Your task to perform on an android device: turn pop-ups off in chrome Image 0: 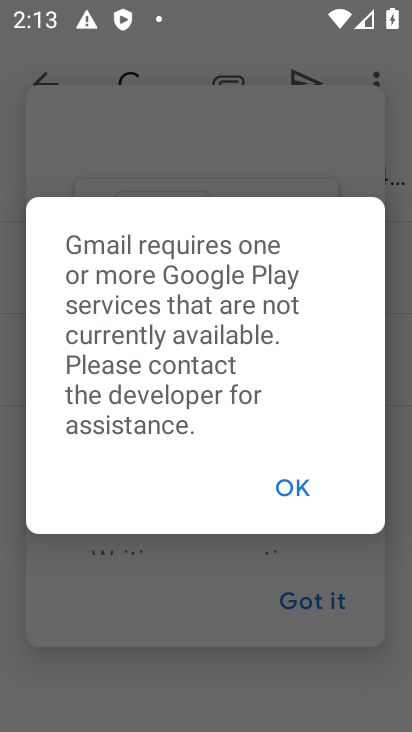
Step 0: click (296, 487)
Your task to perform on an android device: turn pop-ups off in chrome Image 1: 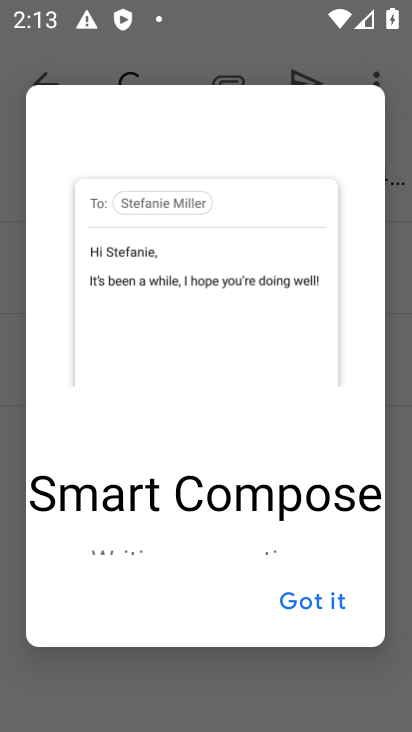
Step 1: press home button
Your task to perform on an android device: turn pop-ups off in chrome Image 2: 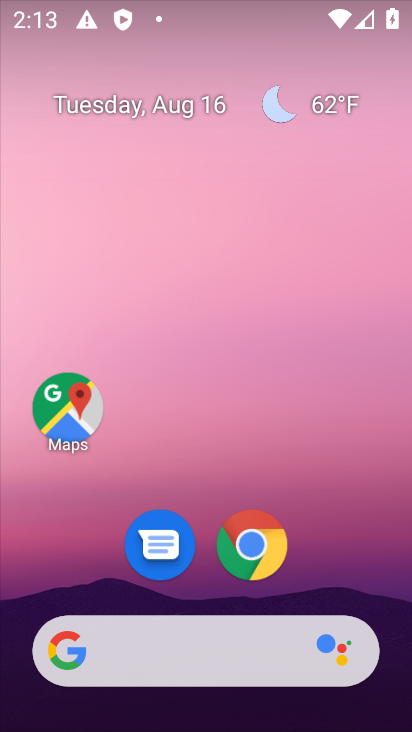
Step 2: click (267, 553)
Your task to perform on an android device: turn pop-ups off in chrome Image 3: 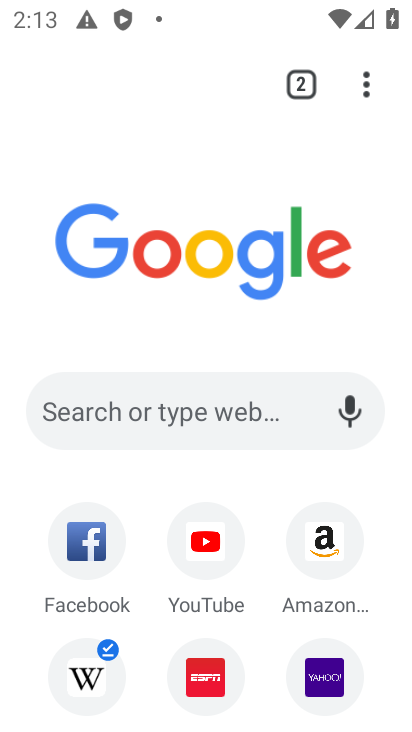
Step 3: click (362, 76)
Your task to perform on an android device: turn pop-ups off in chrome Image 4: 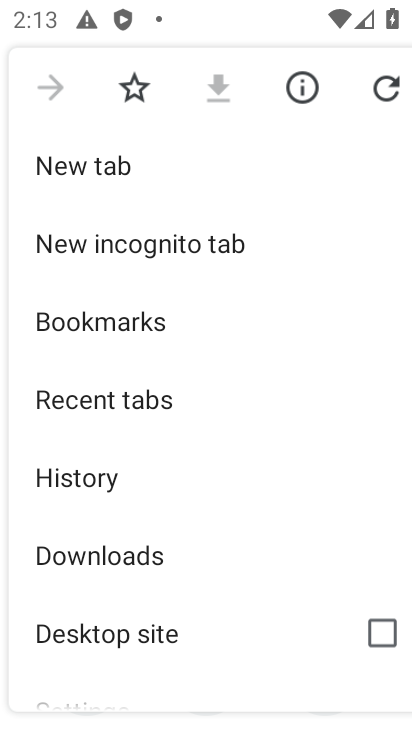
Step 4: drag from (96, 657) to (181, 266)
Your task to perform on an android device: turn pop-ups off in chrome Image 5: 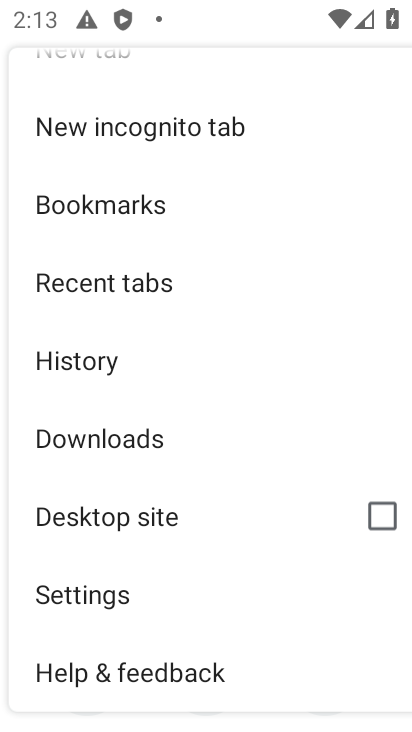
Step 5: click (98, 589)
Your task to perform on an android device: turn pop-ups off in chrome Image 6: 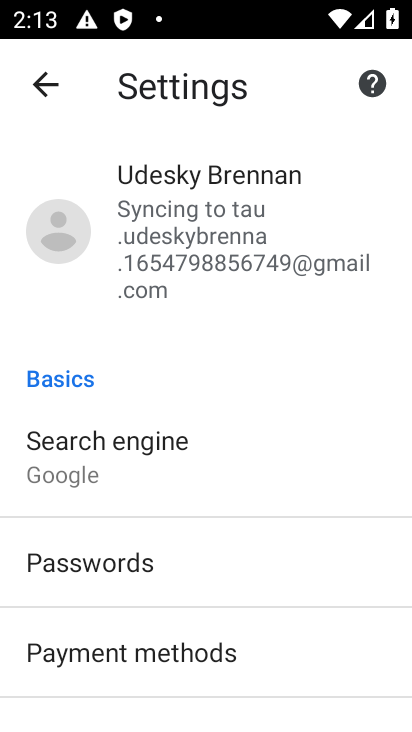
Step 6: drag from (114, 675) to (126, 350)
Your task to perform on an android device: turn pop-ups off in chrome Image 7: 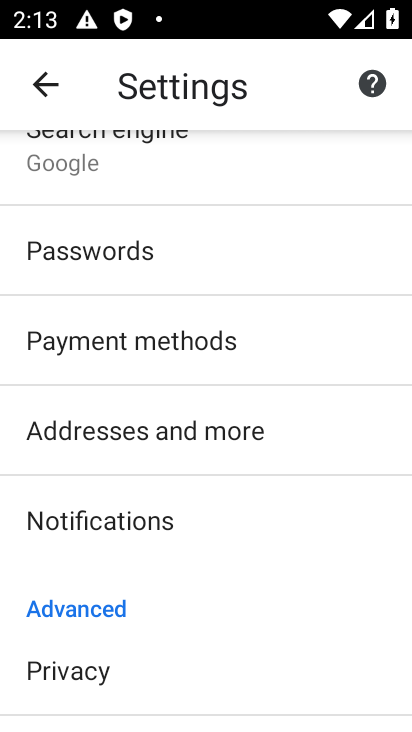
Step 7: drag from (90, 675) to (90, 329)
Your task to perform on an android device: turn pop-ups off in chrome Image 8: 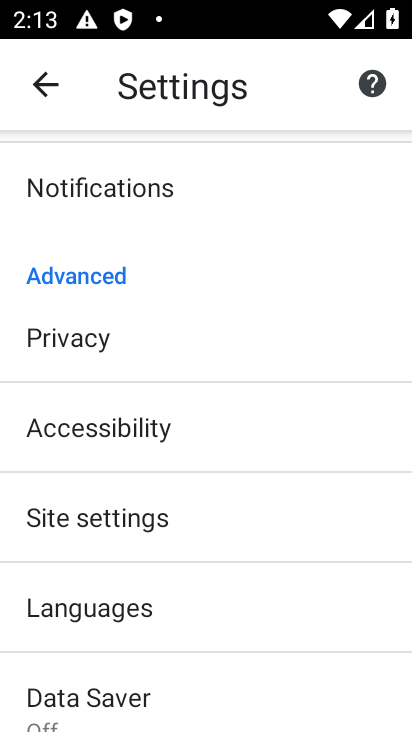
Step 8: click (89, 525)
Your task to perform on an android device: turn pop-ups off in chrome Image 9: 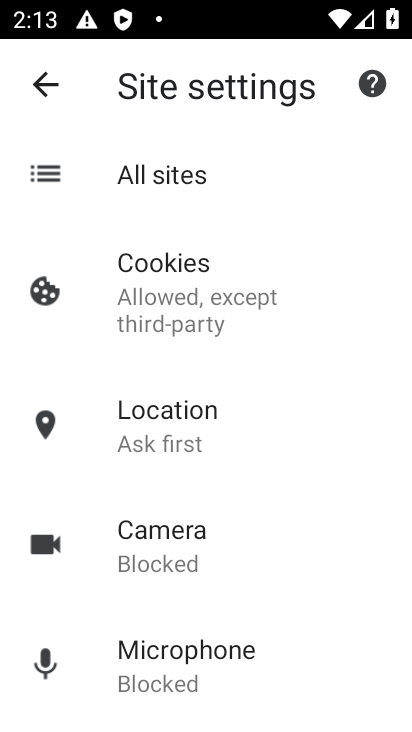
Step 9: click (153, 417)
Your task to perform on an android device: turn pop-ups off in chrome Image 10: 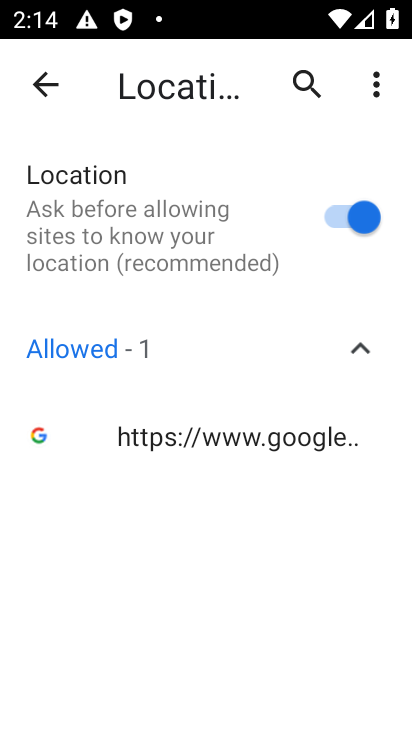
Step 10: click (36, 84)
Your task to perform on an android device: turn pop-ups off in chrome Image 11: 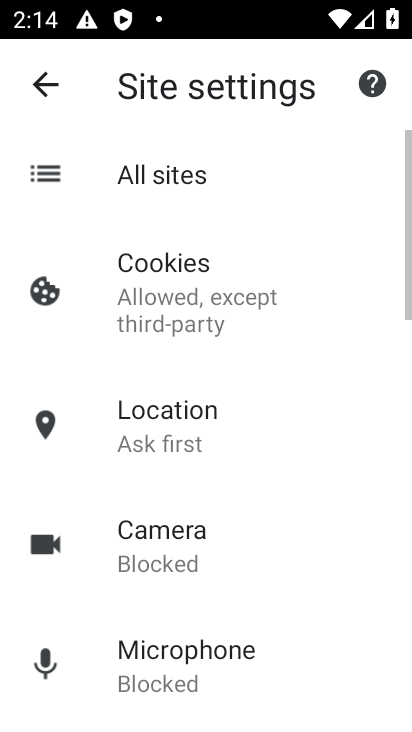
Step 11: drag from (227, 677) to (227, 342)
Your task to perform on an android device: turn pop-ups off in chrome Image 12: 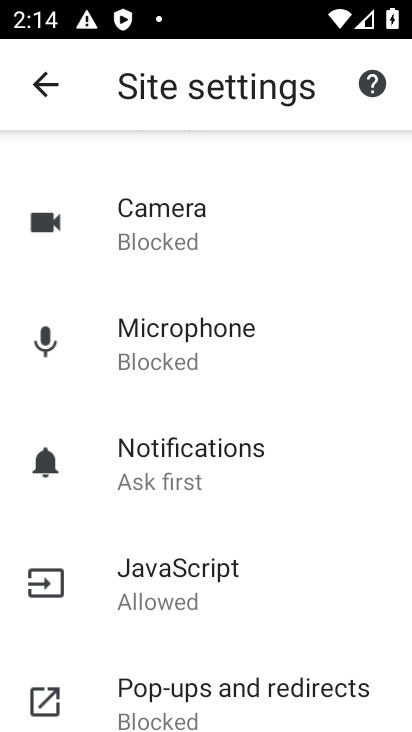
Step 12: click (178, 698)
Your task to perform on an android device: turn pop-ups off in chrome Image 13: 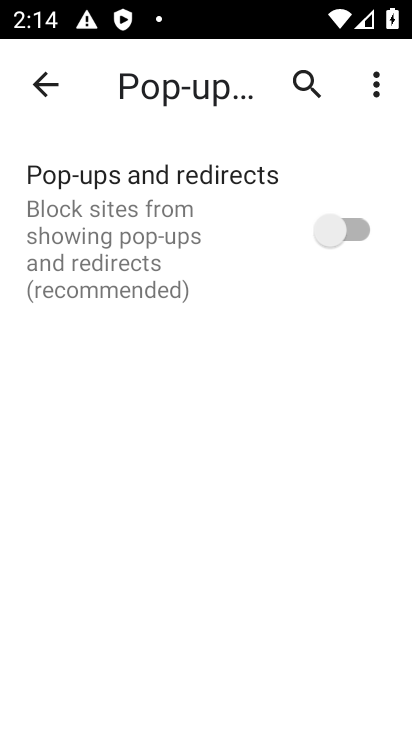
Step 13: task complete